Your task to perform on an android device: Go to privacy settings Image 0: 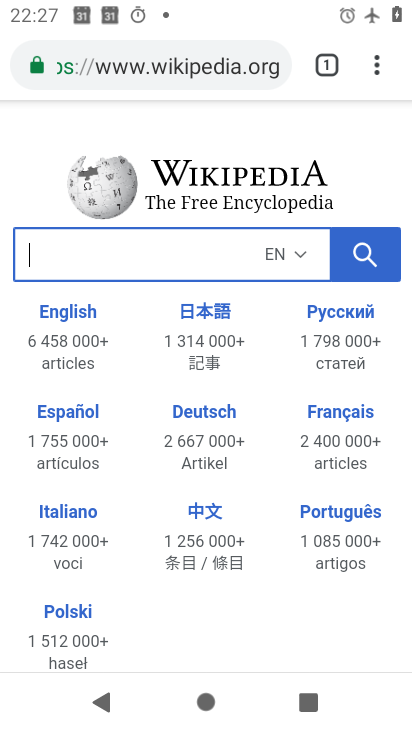
Step 0: press home button
Your task to perform on an android device: Go to privacy settings Image 1: 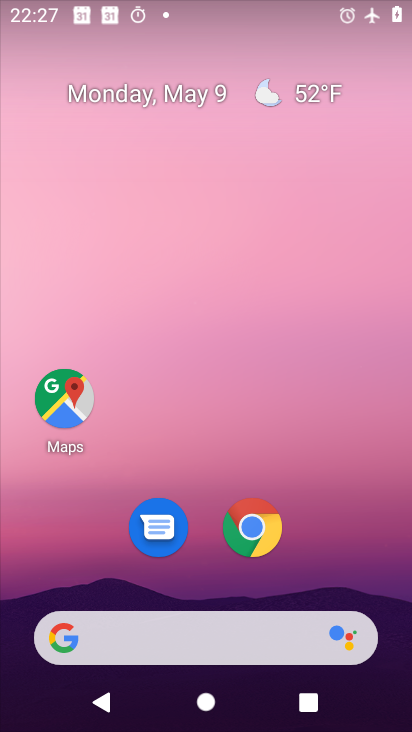
Step 1: click (217, 574)
Your task to perform on an android device: Go to privacy settings Image 2: 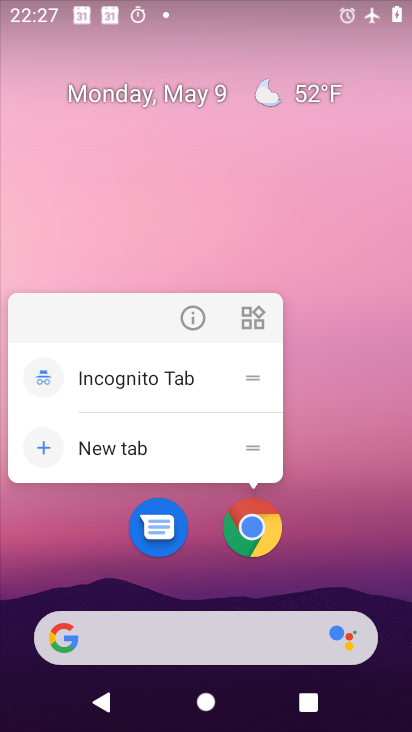
Step 2: click (316, 519)
Your task to perform on an android device: Go to privacy settings Image 3: 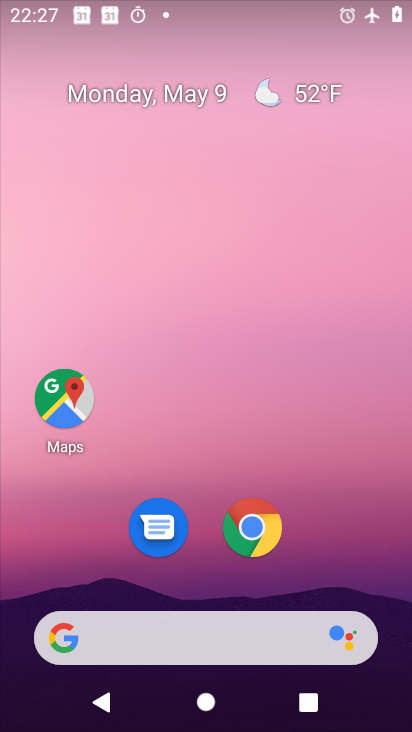
Step 3: click (254, 529)
Your task to perform on an android device: Go to privacy settings Image 4: 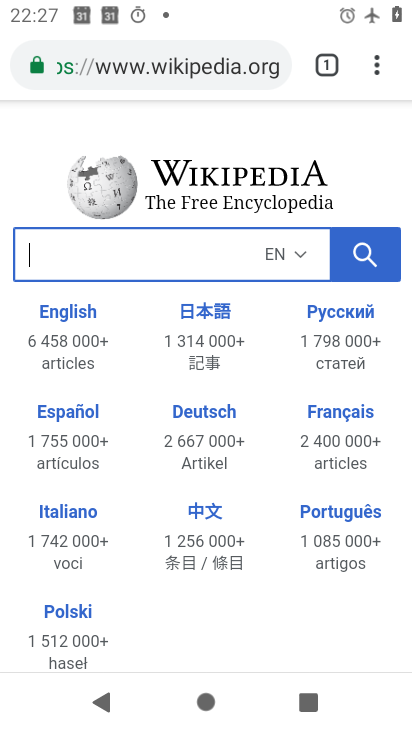
Step 4: click (367, 64)
Your task to perform on an android device: Go to privacy settings Image 5: 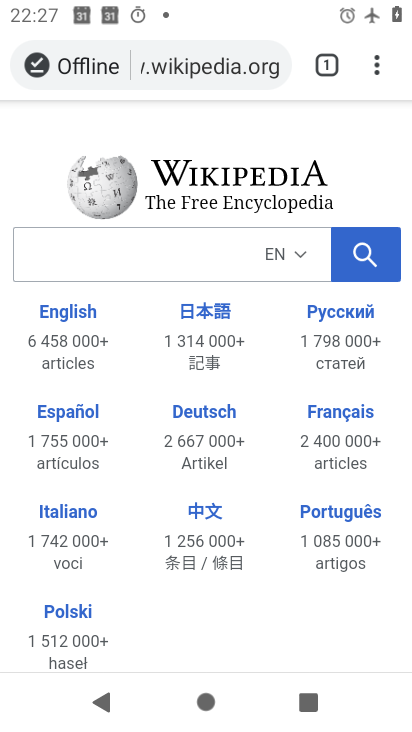
Step 5: click (367, 65)
Your task to perform on an android device: Go to privacy settings Image 6: 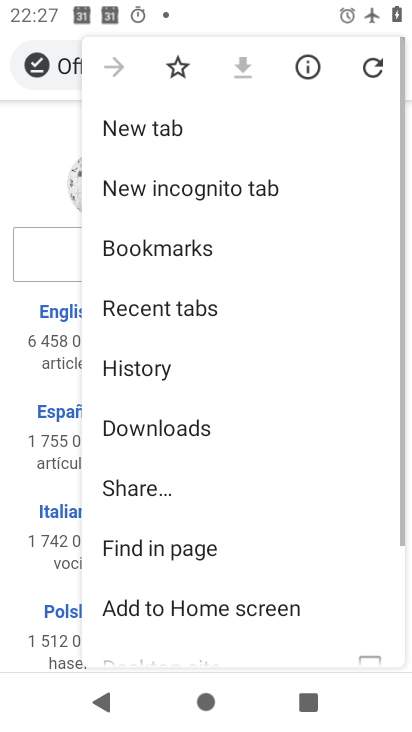
Step 6: drag from (177, 584) to (194, 69)
Your task to perform on an android device: Go to privacy settings Image 7: 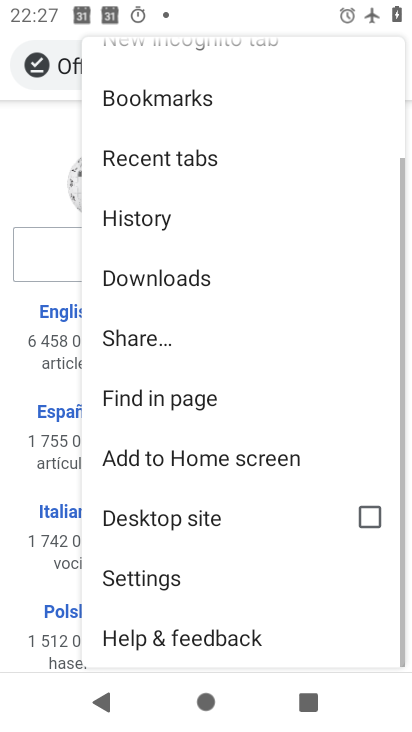
Step 7: click (99, 572)
Your task to perform on an android device: Go to privacy settings Image 8: 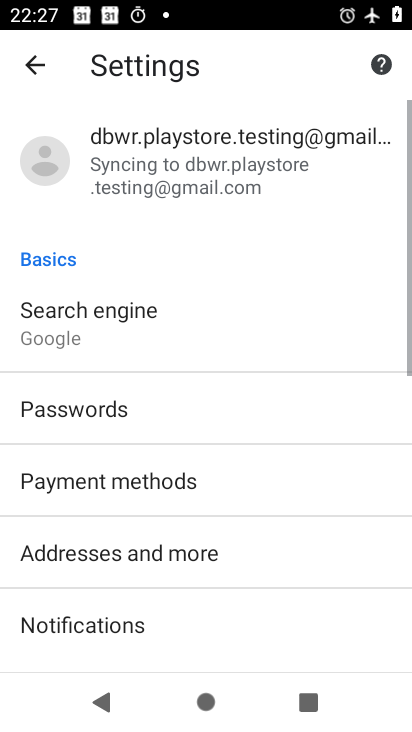
Step 8: drag from (137, 554) to (181, 117)
Your task to perform on an android device: Go to privacy settings Image 9: 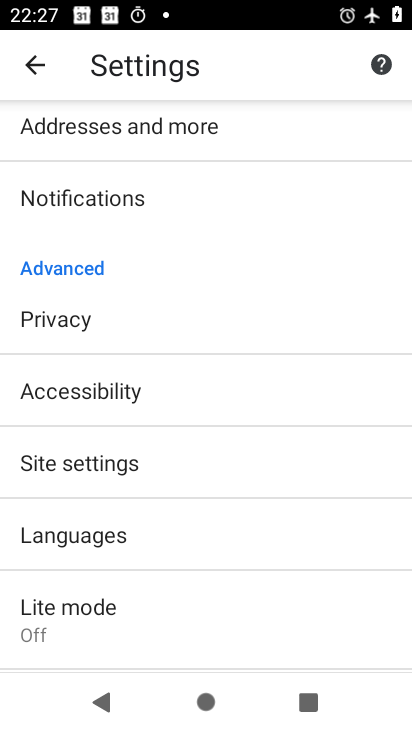
Step 9: click (53, 323)
Your task to perform on an android device: Go to privacy settings Image 10: 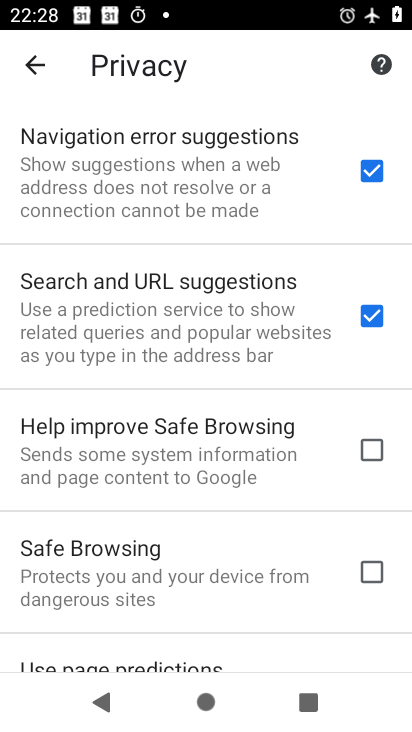
Step 10: task complete